Your task to perform on an android device: What is the news today? Image 0: 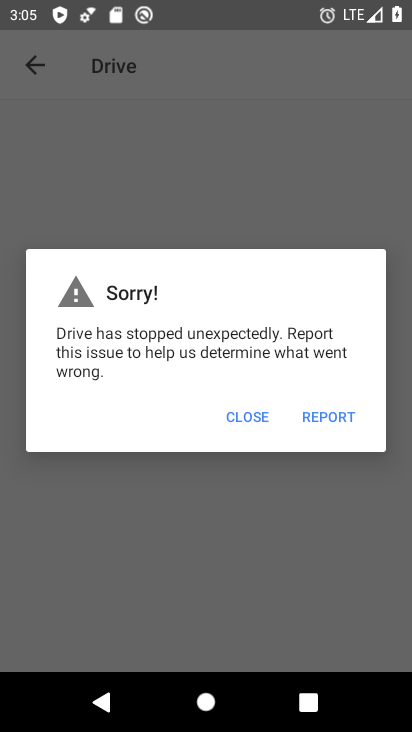
Step 0: press back button
Your task to perform on an android device: What is the news today? Image 1: 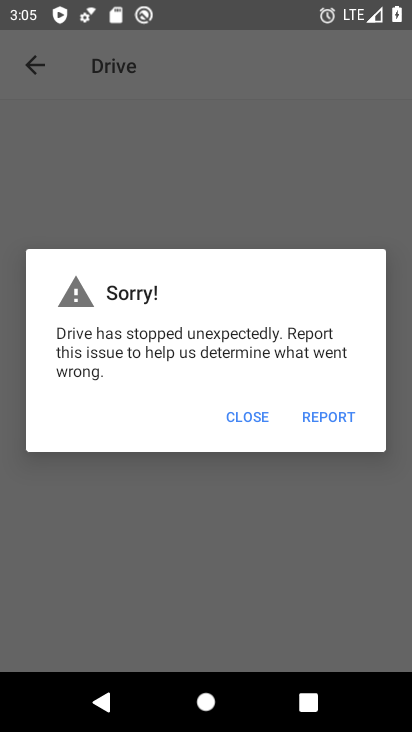
Step 1: press home button
Your task to perform on an android device: What is the news today? Image 2: 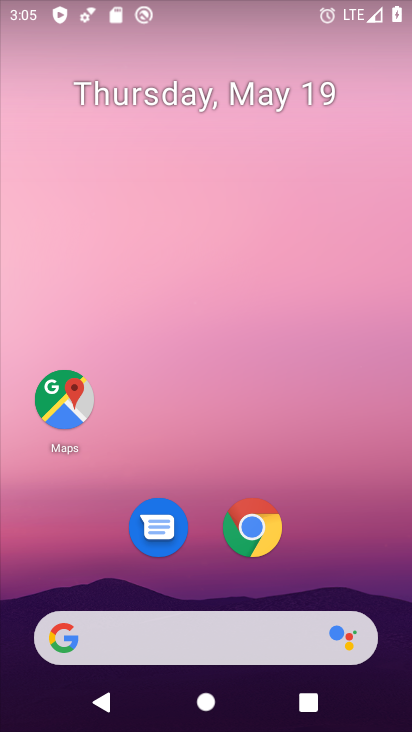
Step 2: click (147, 652)
Your task to perform on an android device: What is the news today? Image 3: 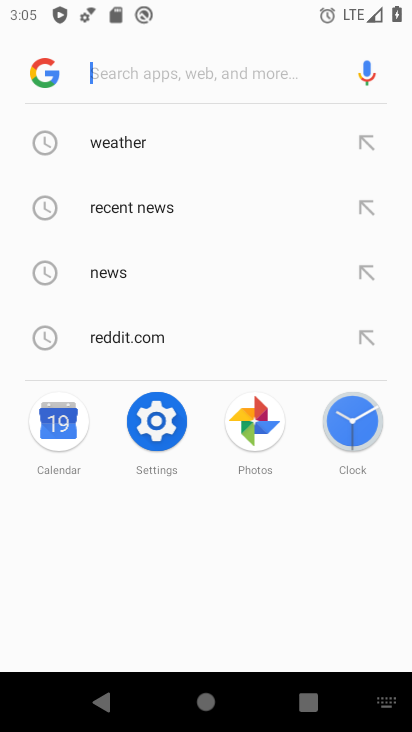
Step 3: click (131, 60)
Your task to perform on an android device: What is the news today? Image 4: 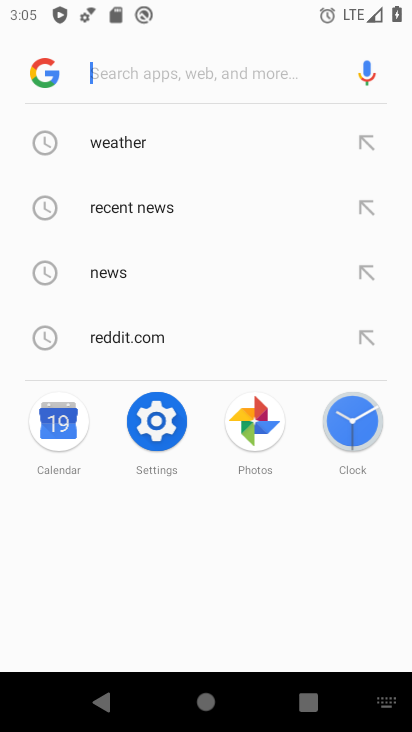
Step 4: type "news today"
Your task to perform on an android device: What is the news today? Image 5: 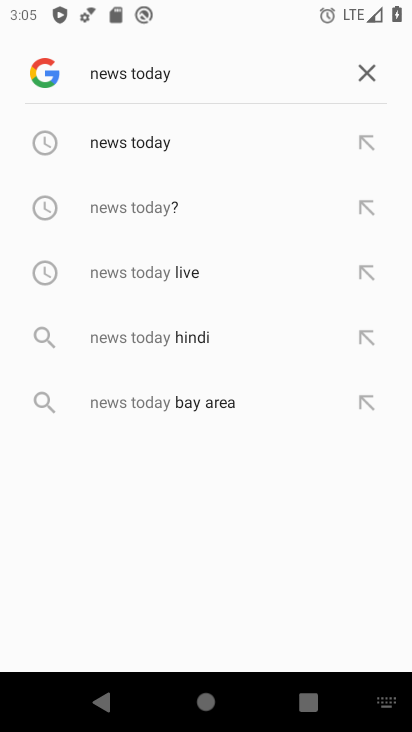
Step 5: click (146, 152)
Your task to perform on an android device: What is the news today? Image 6: 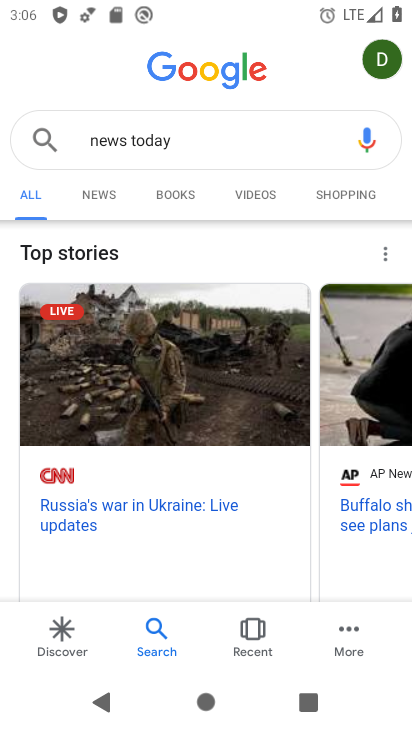
Step 6: task complete